Your task to perform on an android device: Show me popular videos on Youtube Image 0: 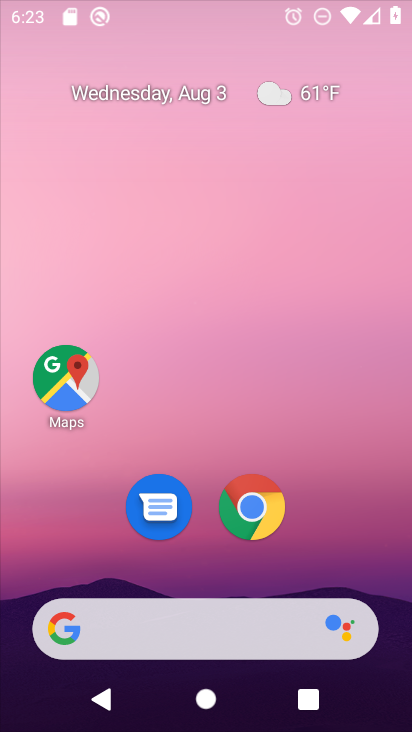
Step 0: drag from (323, 558) to (361, 63)
Your task to perform on an android device: Show me popular videos on Youtube Image 1: 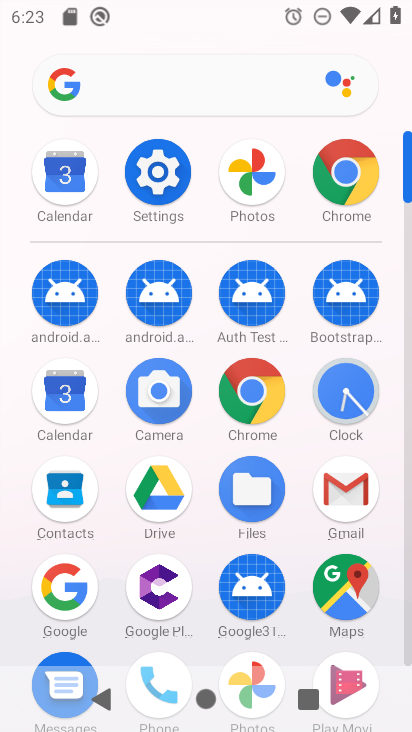
Step 1: drag from (292, 547) to (332, 100)
Your task to perform on an android device: Show me popular videos on Youtube Image 2: 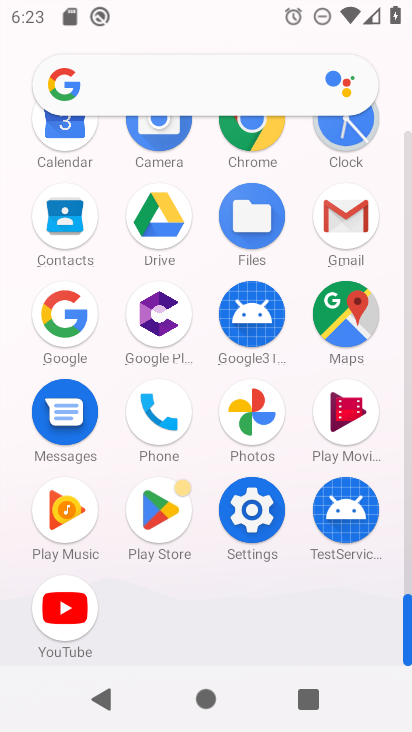
Step 2: click (52, 607)
Your task to perform on an android device: Show me popular videos on Youtube Image 3: 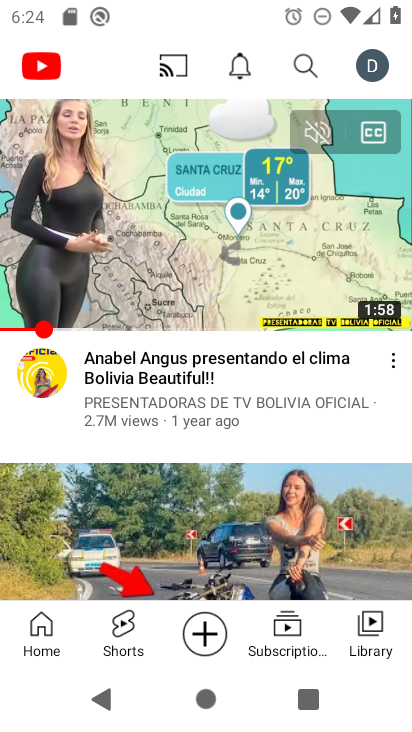
Step 3: click (39, 632)
Your task to perform on an android device: Show me popular videos on Youtube Image 4: 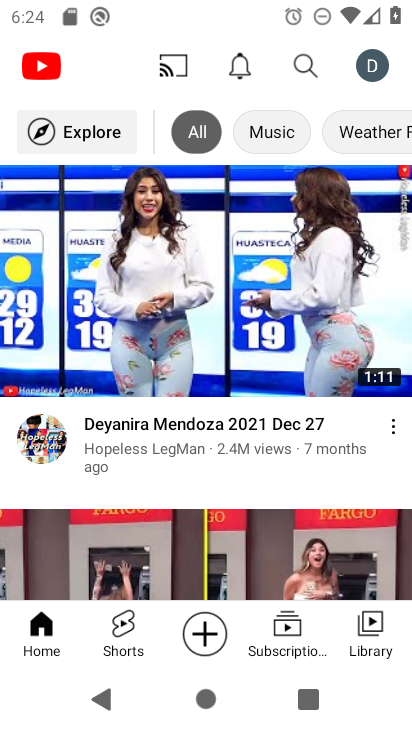
Step 4: click (91, 138)
Your task to perform on an android device: Show me popular videos on Youtube Image 5: 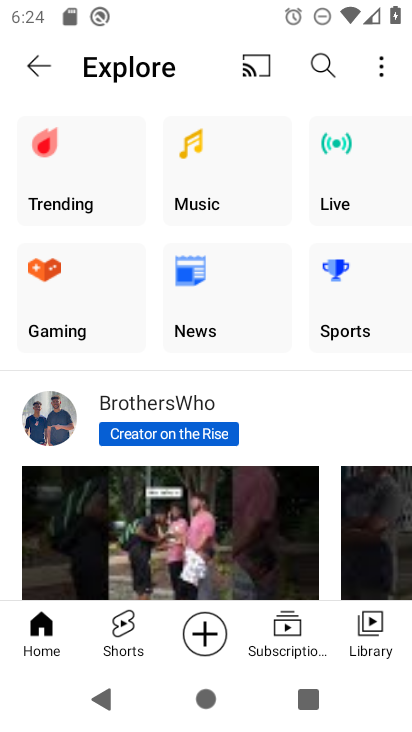
Step 5: task complete